Your task to perform on an android device: Play the last video I watched on Youtube Image 0: 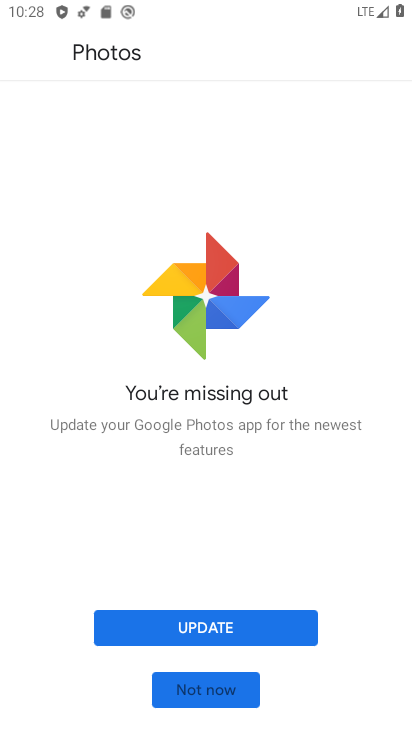
Step 0: press home button
Your task to perform on an android device: Play the last video I watched on Youtube Image 1: 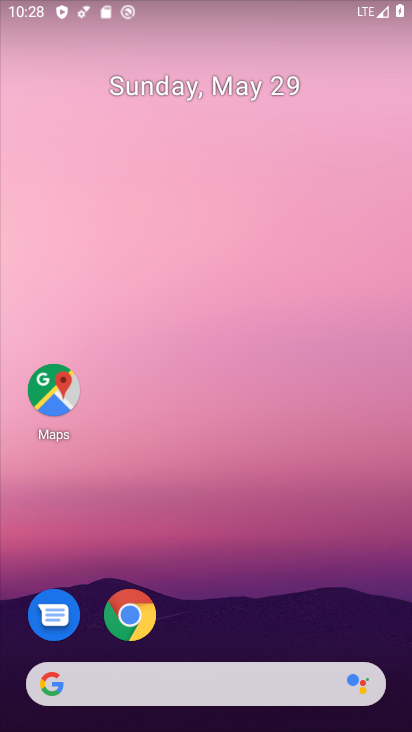
Step 1: drag from (370, 624) to (365, 144)
Your task to perform on an android device: Play the last video I watched on Youtube Image 2: 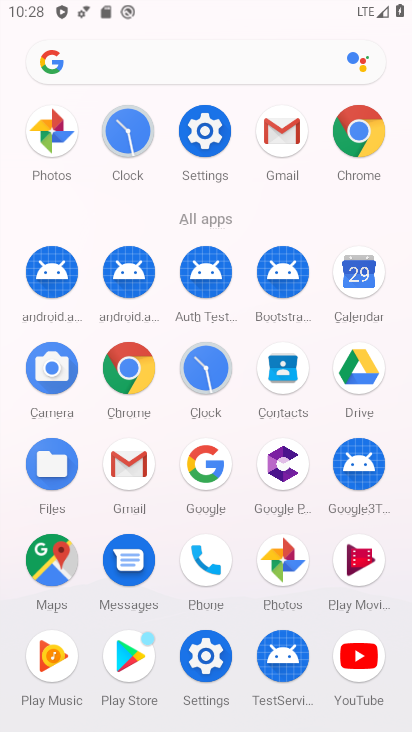
Step 2: click (356, 669)
Your task to perform on an android device: Play the last video I watched on Youtube Image 3: 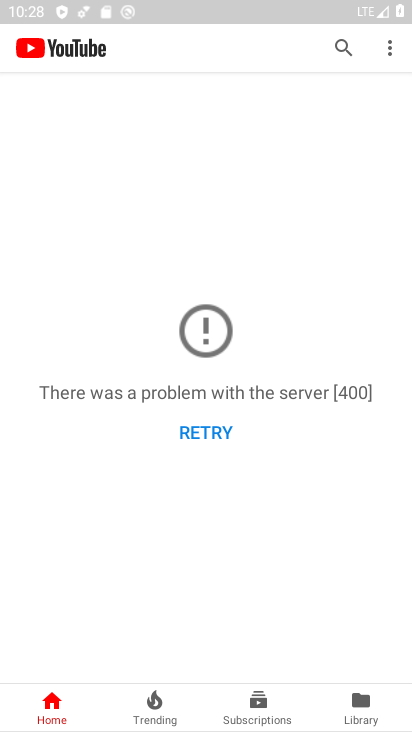
Step 3: click (354, 717)
Your task to perform on an android device: Play the last video I watched on Youtube Image 4: 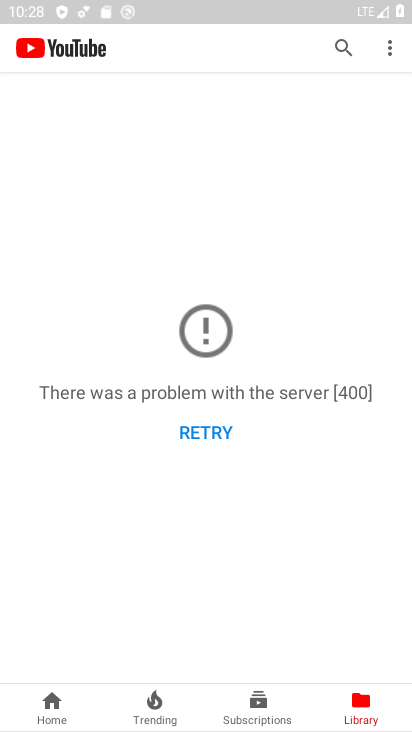
Step 4: click (39, 714)
Your task to perform on an android device: Play the last video I watched on Youtube Image 5: 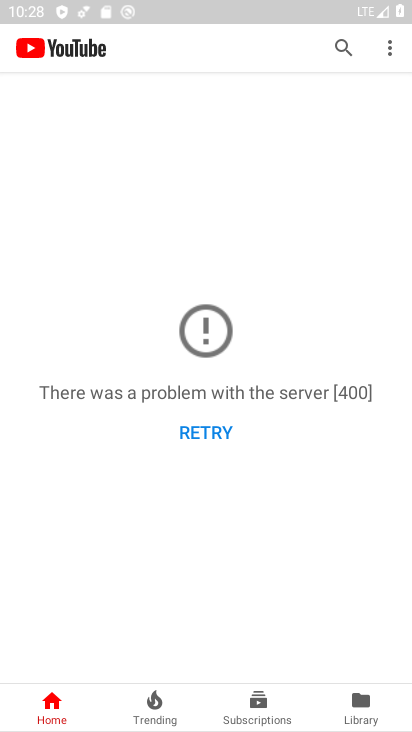
Step 5: task complete